Your task to perform on an android device: Open calendar and show me the fourth week of next month Image 0: 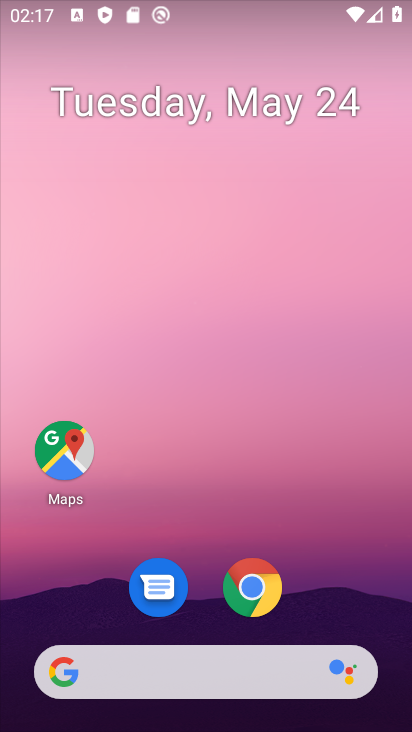
Step 0: drag from (162, 709) to (218, 72)
Your task to perform on an android device: Open calendar and show me the fourth week of next month Image 1: 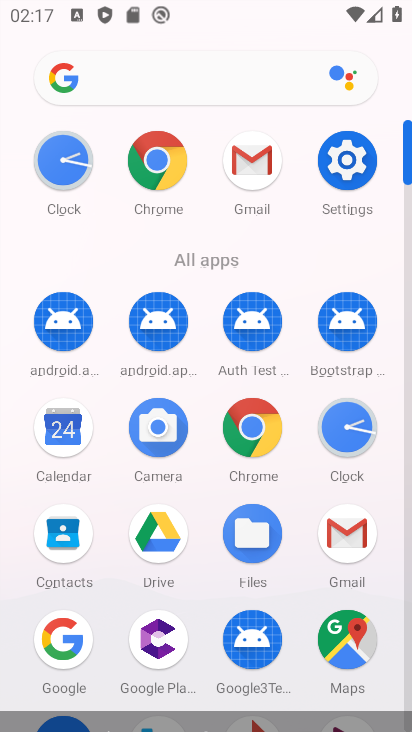
Step 1: click (77, 428)
Your task to perform on an android device: Open calendar and show me the fourth week of next month Image 2: 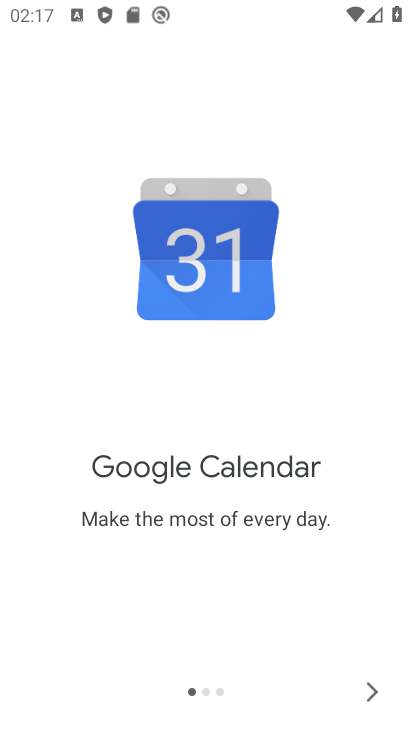
Step 2: click (355, 680)
Your task to perform on an android device: Open calendar and show me the fourth week of next month Image 3: 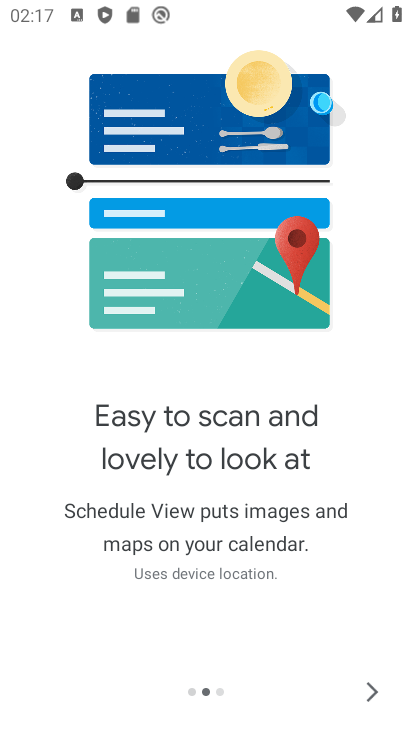
Step 3: click (355, 680)
Your task to perform on an android device: Open calendar and show me the fourth week of next month Image 4: 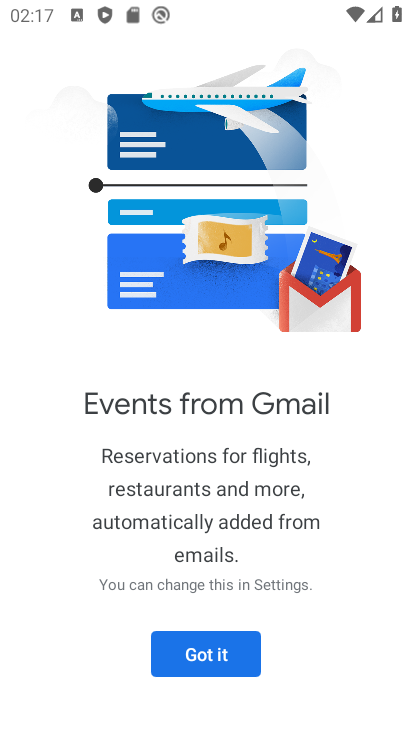
Step 4: click (355, 680)
Your task to perform on an android device: Open calendar and show me the fourth week of next month Image 5: 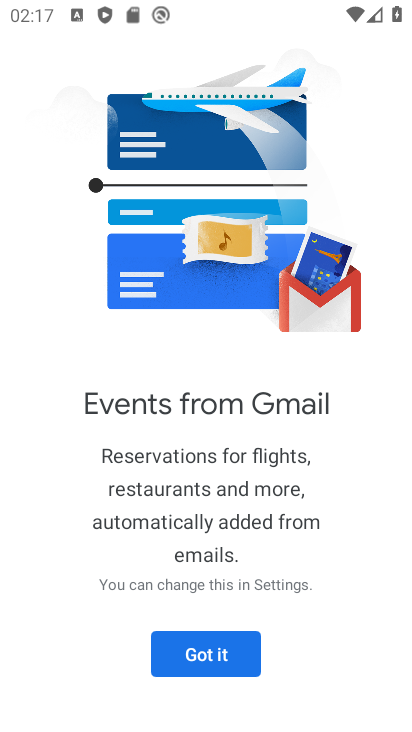
Step 5: drag from (271, 649) to (234, 650)
Your task to perform on an android device: Open calendar and show me the fourth week of next month Image 6: 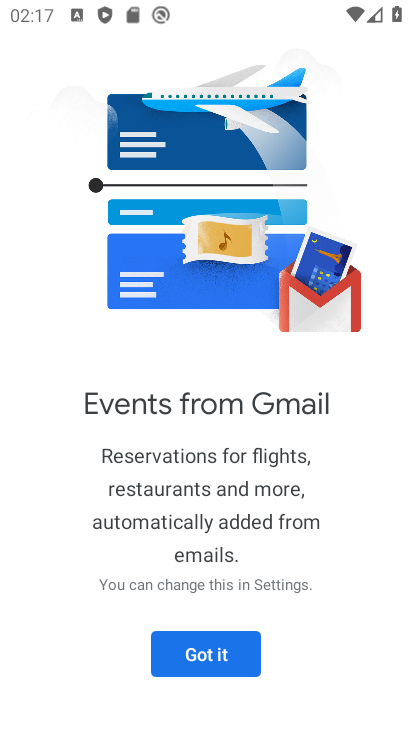
Step 6: click (217, 649)
Your task to perform on an android device: Open calendar and show me the fourth week of next month Image 7: 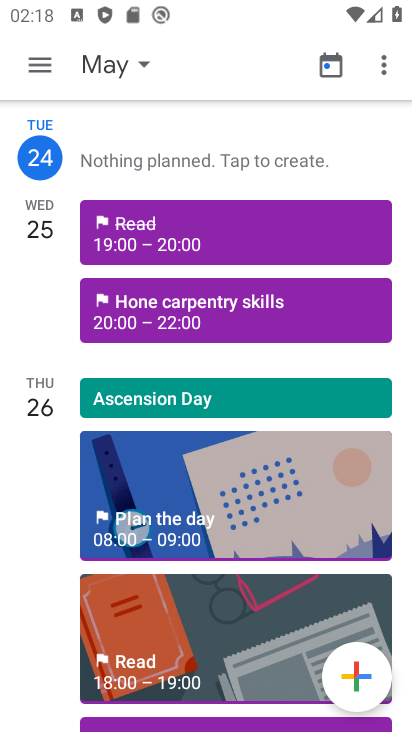
Step 7: click (106, 69)
Your task to perform on an android device: Open calendar and show me the fourth week of next month Image 8: 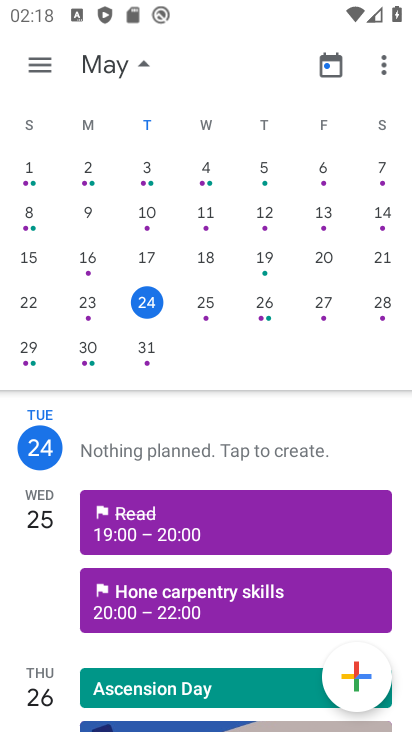
Step 8: drag from (298, 230) to (113, 230)
Your task to perform on an android device: Open calendar and show me the fourth week of next month Image 9: 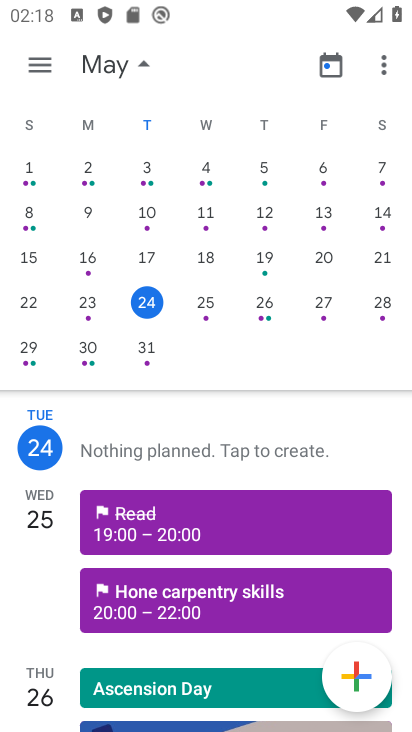
Step 9: drag from (358, 206) to (0, 239)
Your task to perform on an android device: Open calendar and show me the fourth week of next month Image 10: 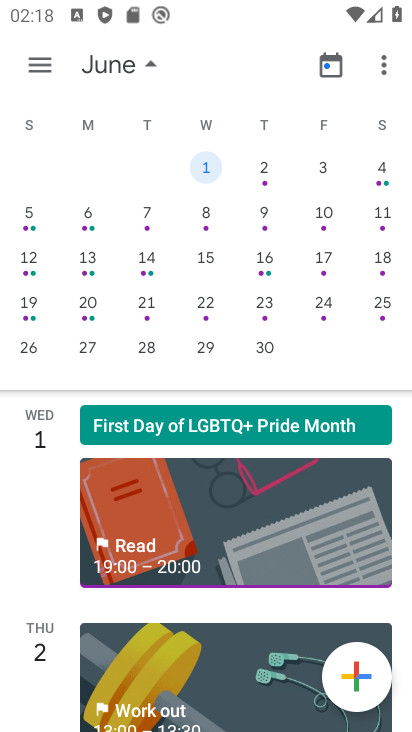
Step 10: click (24, 305)
Your task to perform on an android device: Open calendar and show me the fourth week of next month Image 11: 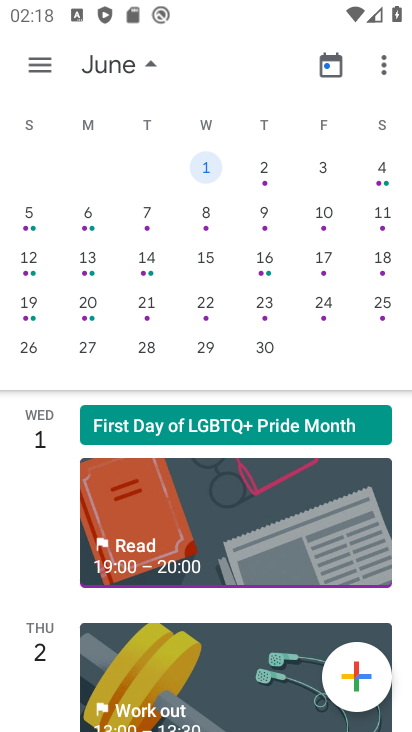
Step 11: click (28, 302)
Your task to perform on an android device: Open calendar and show me the fourth week of next month Image 12: 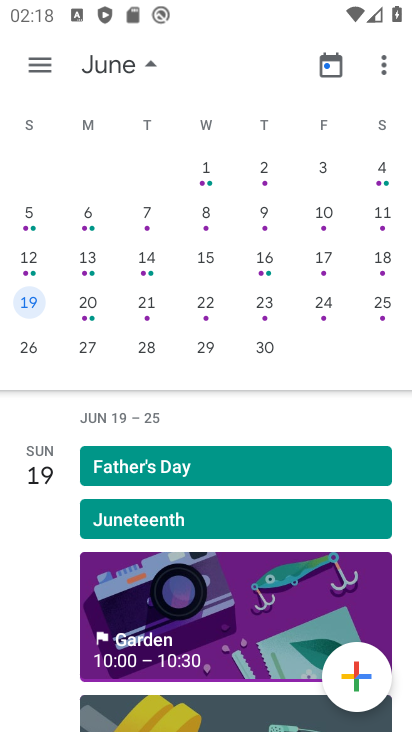
Step 12: task complete